Your task to perform on an android device: Open calendar and show me the second week of next month Image 0: 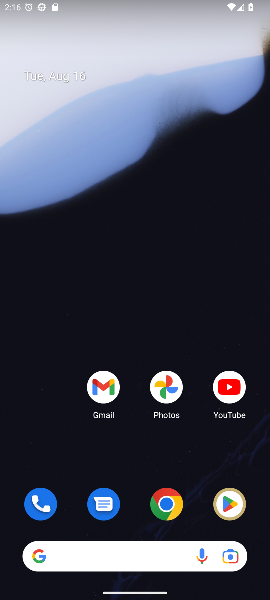
Step 0: drag from (133, 493) to (127, 126)
Your task to perform on an android device: Open calendar and show me the second week of next month Image 1: 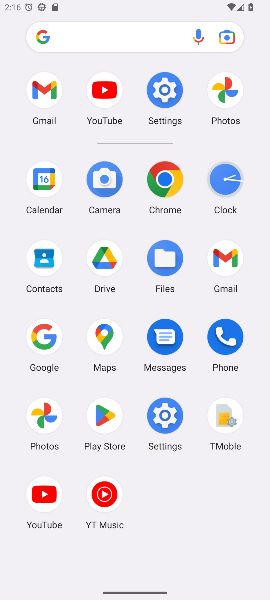
Step 1: click (39, 179)
Your task to perform on an android device: Open calendar and show me the second week of next month Image 2: 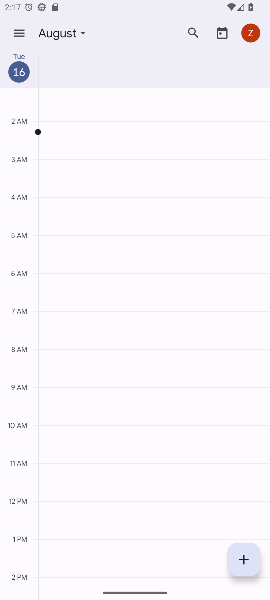
Step 2: click (14, 33)
Your task to perform on an android device: Open calendar and show me the second week of next month Image 3: 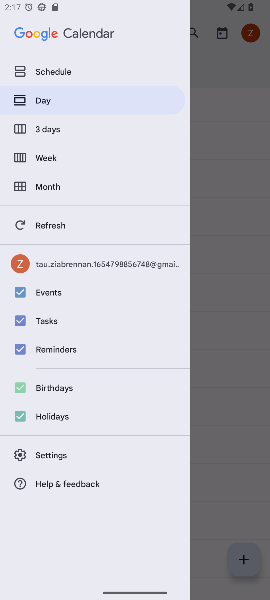
Step 3: click (47, 152)
Your task to perform on an android device: Open calendar and show me the second week of next month Image 4: 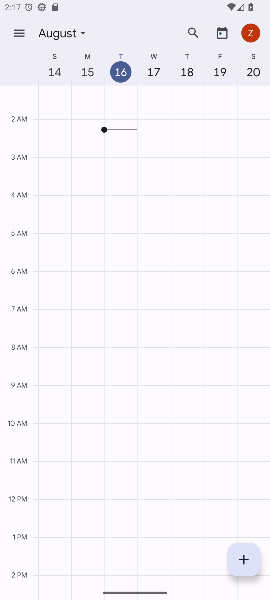
Step 4: click (81, 32)
Your task to perform on an android device: Open calendar and show me the second week of next month Image 5: 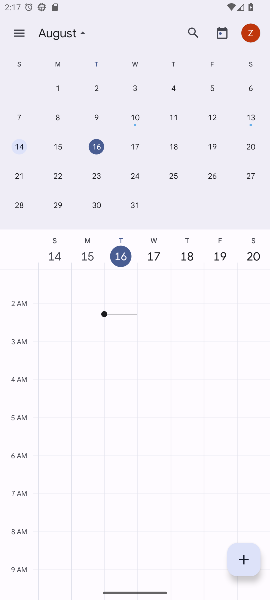
Step 5: drag from (229, 169) to (28, 162)
Your task to perform on an android device: Open calendar and show me the second week of next month Image 6: 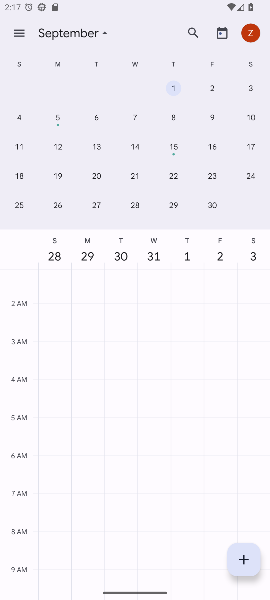
Step 6: click (173, 117)
Your task to perform on an android device: Open calendar and show me the second week of next month Image 7: 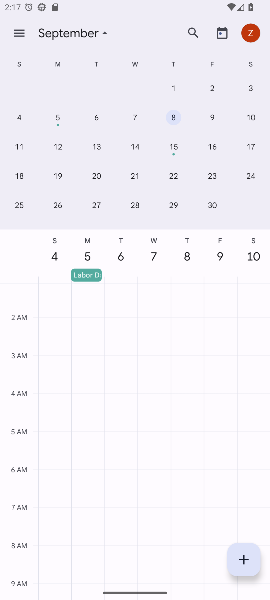
Step 7: task complete